Your task to perform on an android device: Open notification settings Image 0: 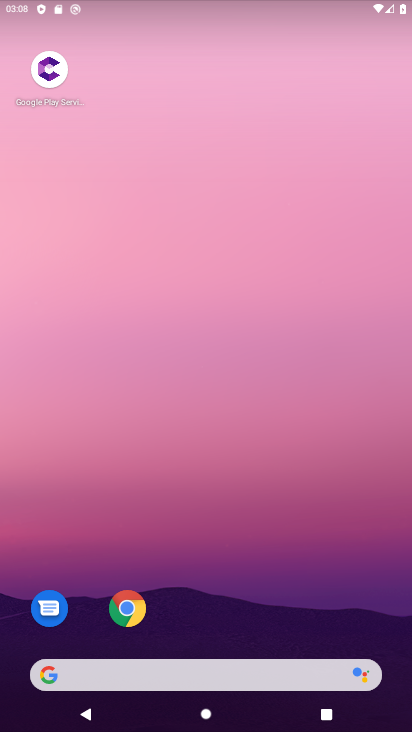
Step 0: click (126, 619)
Your task to perform on an android device: Open notification settings Image 1: 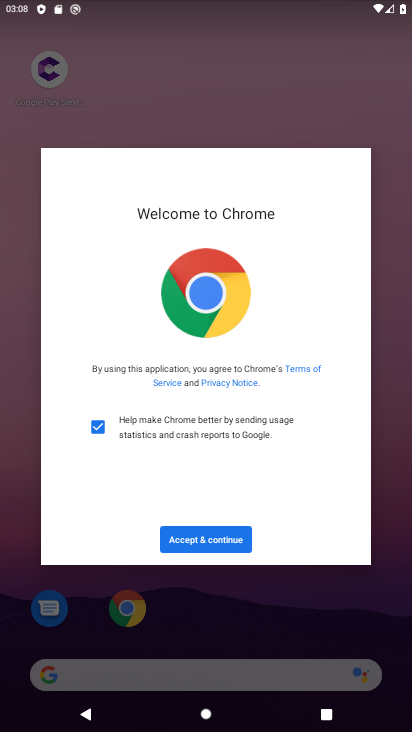
Step 1: click (218, 544)
Your task to perform on an android device: Open notification settings Image 2: 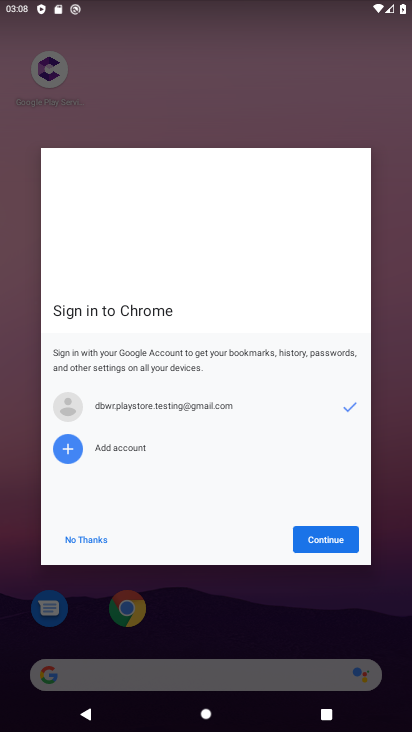
Step 2: click (218, 544)
Your task to perform on an android device: Open notification settings Image 3: 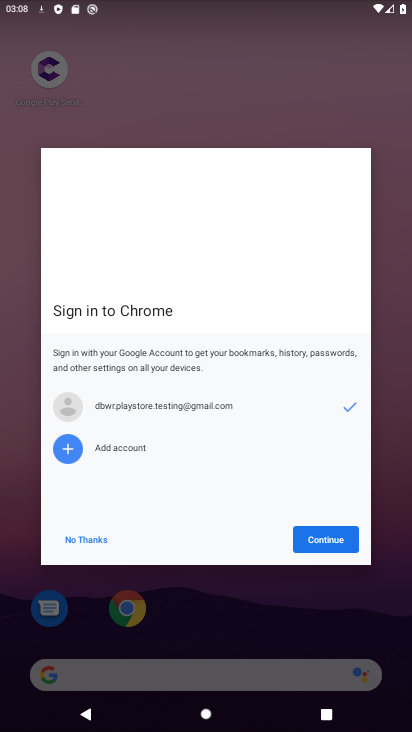
Step 3: press back button
Your task to perform on an android device: Open notification settings Image 4: 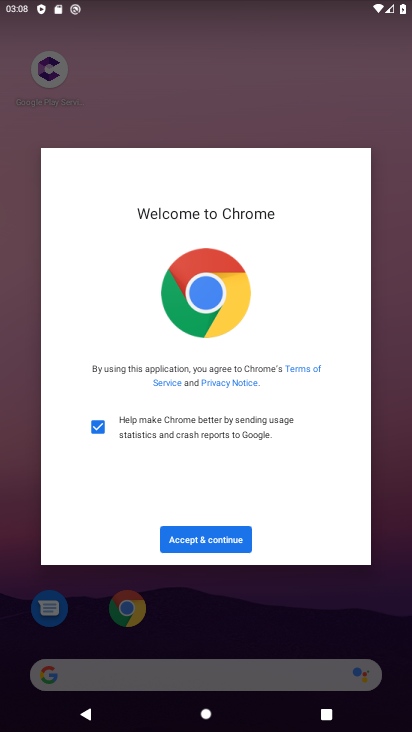
Step 4: press back button
Your task to perform on an android device: Open notification settings Image 5: 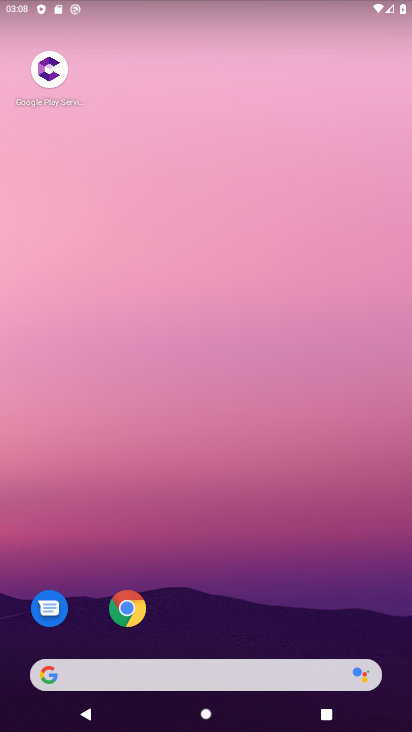
Step 5: drag from (216, 665) to (221, 254)
Your task to perform on an android device: Open notification settings Image 6: 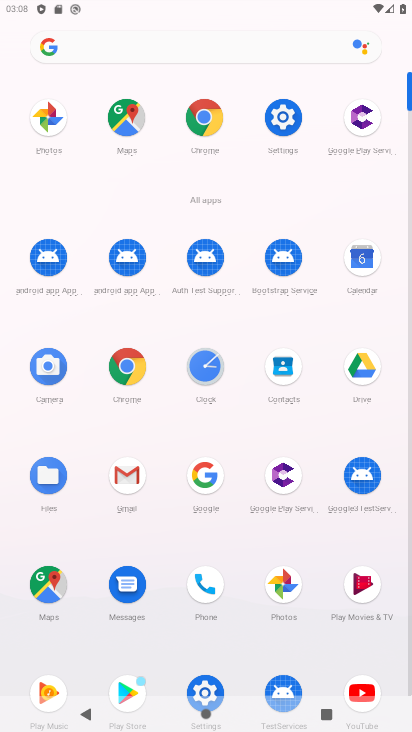
Step 6: click (300, 122)
Your task to perform on an android device: Open notification settings Image 7: 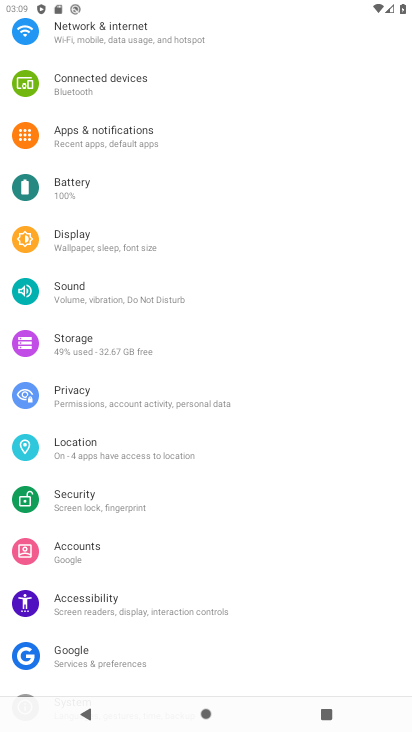
Step 7: click (162, 143)
Your task to perform on an android device: Open notification settings Image 8: 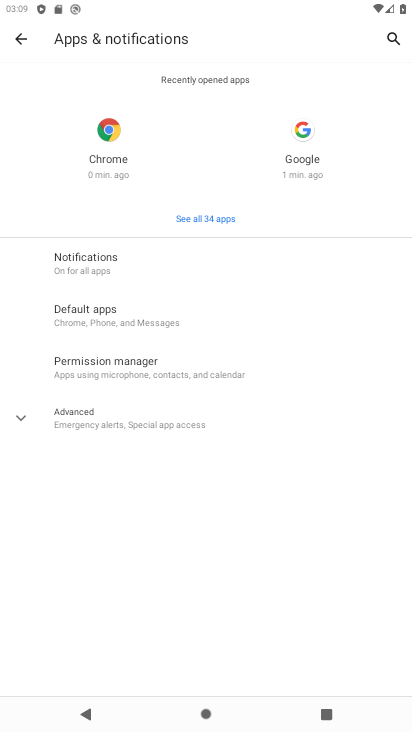
Step 8: task complete